Your task to perform on an android device: Open Wikipedia Image 0: 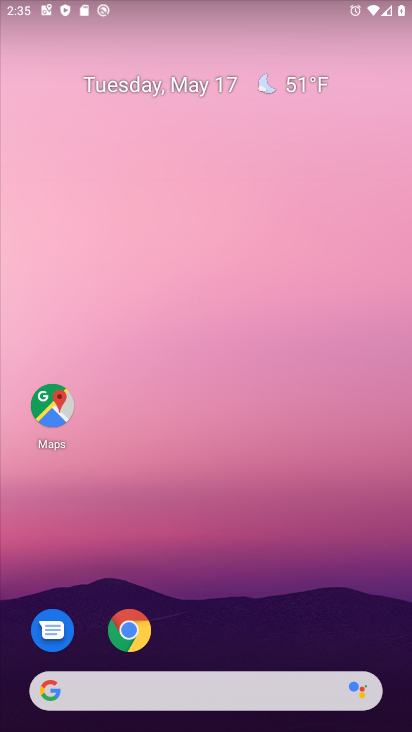
Step 0: click (121, 627)
Your task to perform on an android device: Open Wikipedia Image 1: 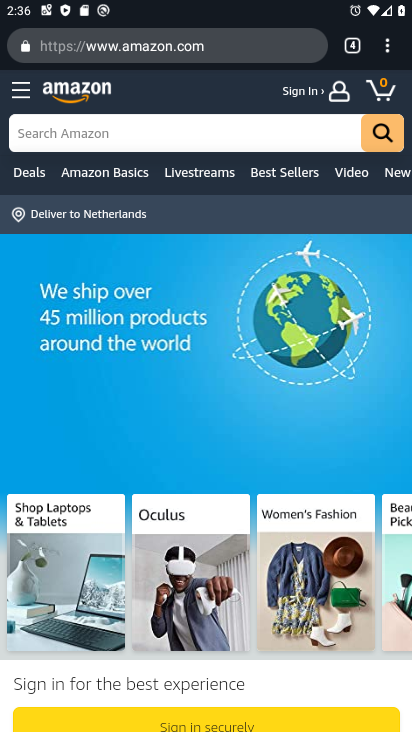
Step 1: click (355, 48)
Your task to perform on an android device: Open Wikipedia Image 2: 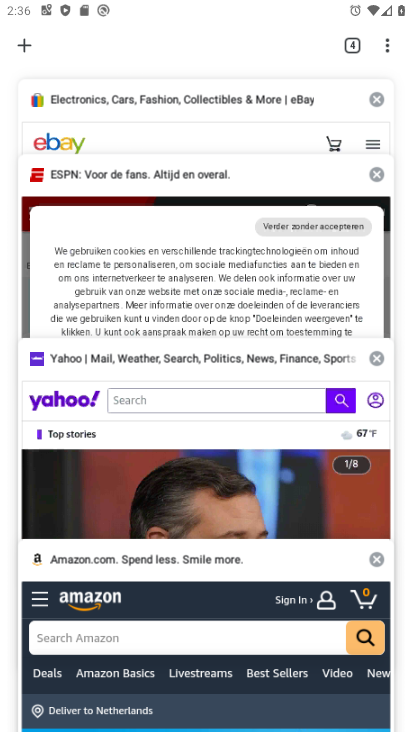
Step 2: click (18, 37)
Your task to perform on an android device: Open Wikipedia Image 3: 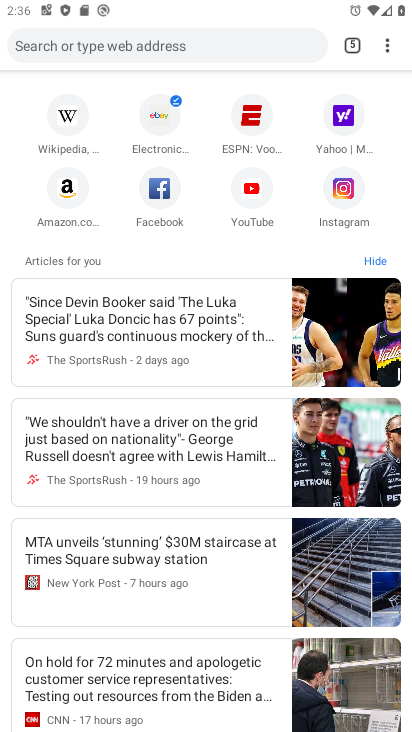
Step 3: click (72, 134)
Your task to perform on an android device: Open Wikipedia Image 4: 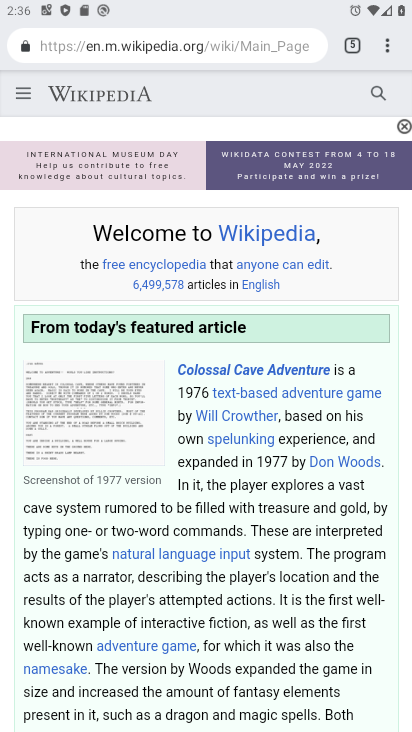
Step 4: task complete